Your task to perform on an android device: Open CNN.com Image 0: 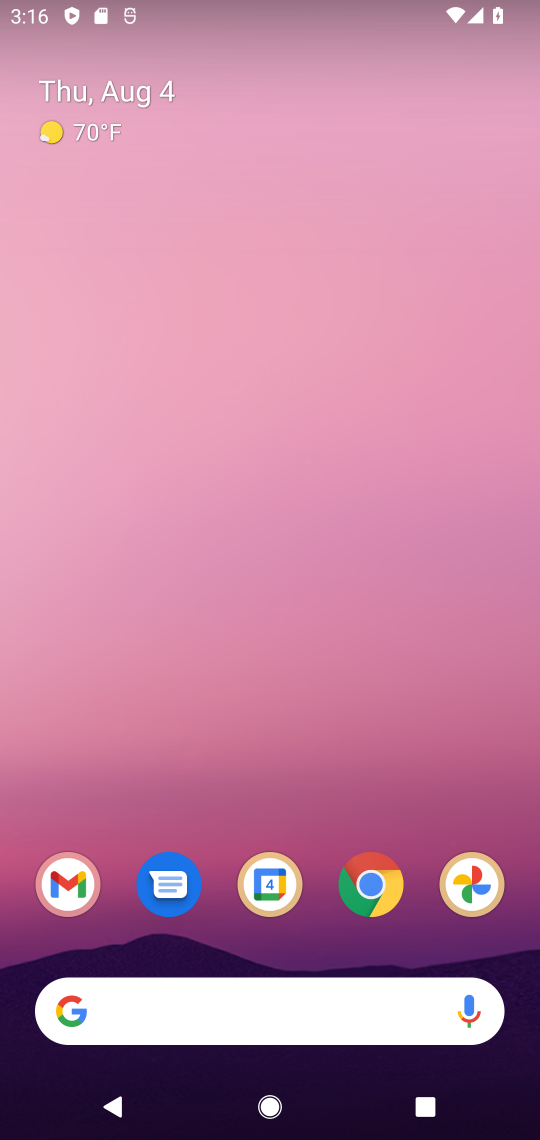
Step 0: drag from (203, 977) to (307, 161)
Your task to perform on an android device: Open CNN.com Image 1: 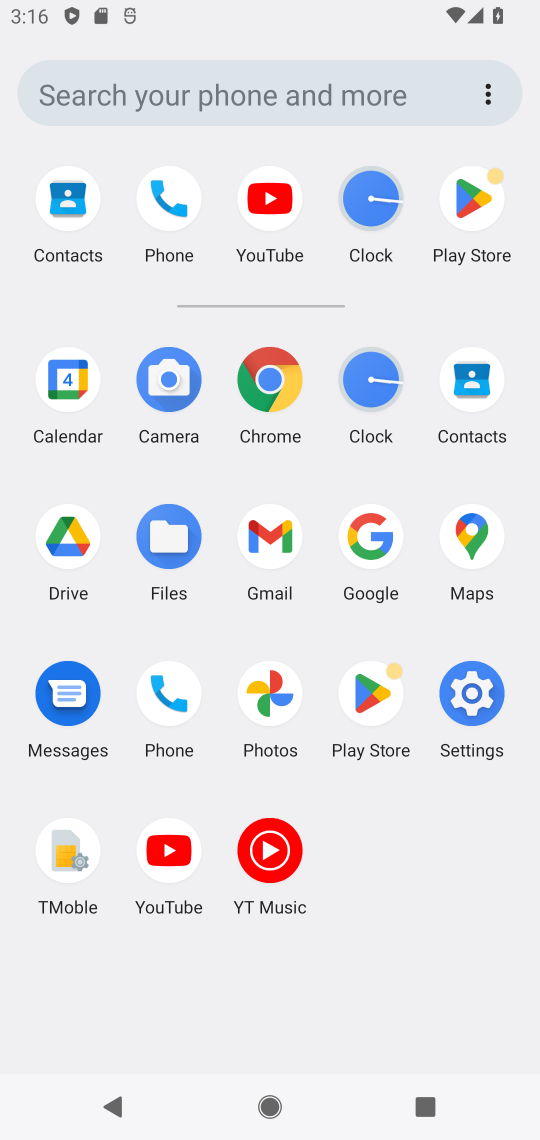
Step 1: click (261, 387)
Your task to perform on an android device: Open CNN.com Image 2: 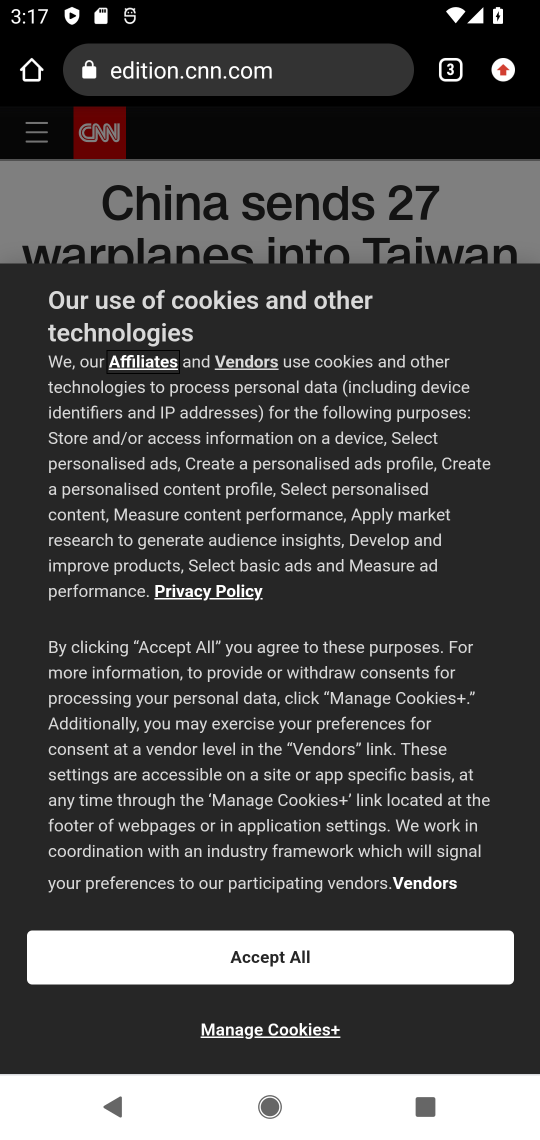
Step 2: task complete